Your task to perform on an android device: Open settings Image 0: 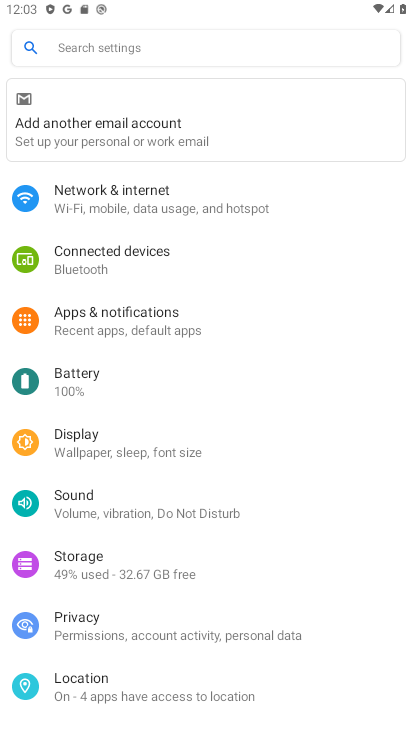
Step 0: drag from (185, 618) to (267, 236)
Your task to perform on an android device: Open settings Image 1: 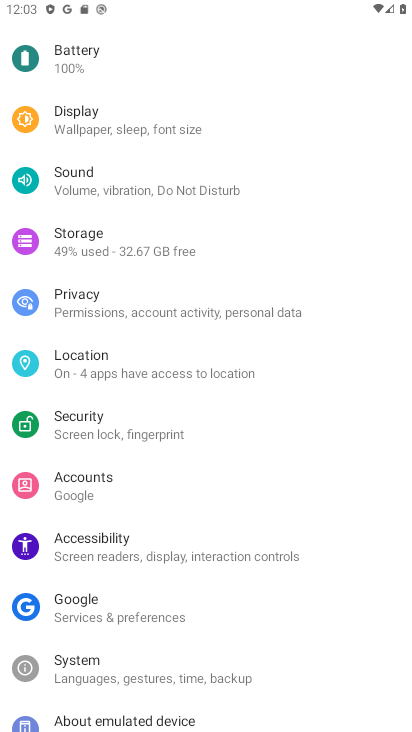
Step 1: task complete